Your task to perform on an android device: visit the assistant section in the google photos Image 0: 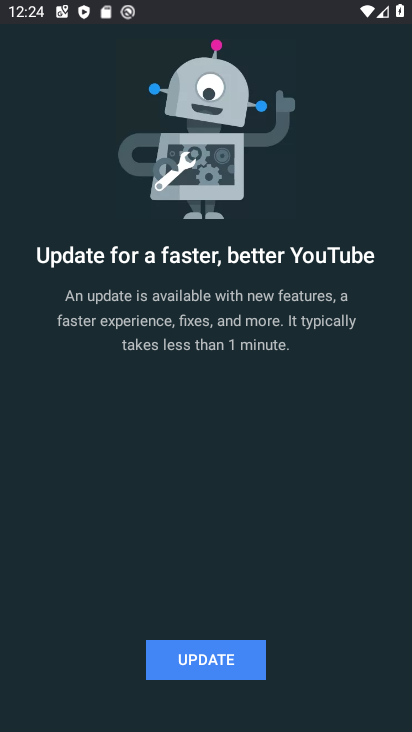
Step 0: press home button
Your task to perform on an android device: visit the assistant section in the google photos Image 1: 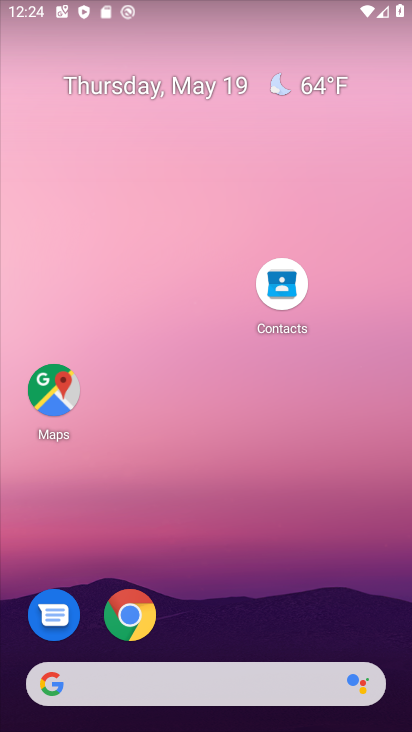
Step 1: drag from (240, 618) to (245, 181)
Your task to perform on an android device: visit the assistant section in the google photos Image 2: 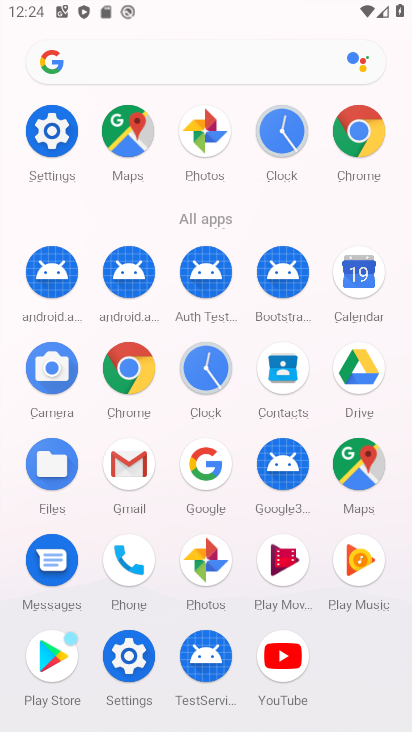
Step 2: click (209, 565)
Your task to perform on an android device: visit the assistant section in the google photos Image 3: 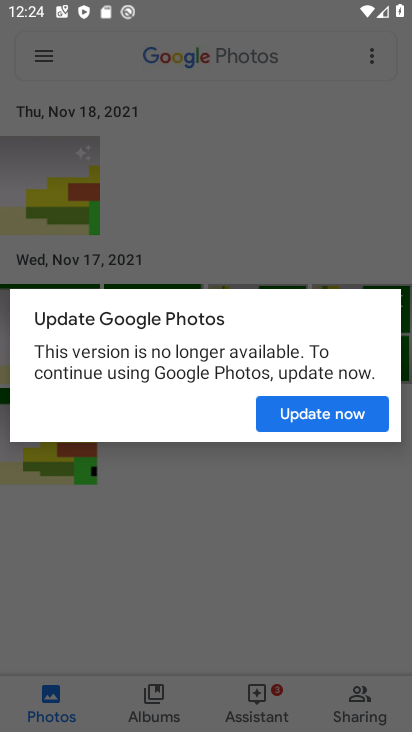
Step 3: task complete